Your task to perform on an android device: Search for Italian restaurants on Maps Image 0: 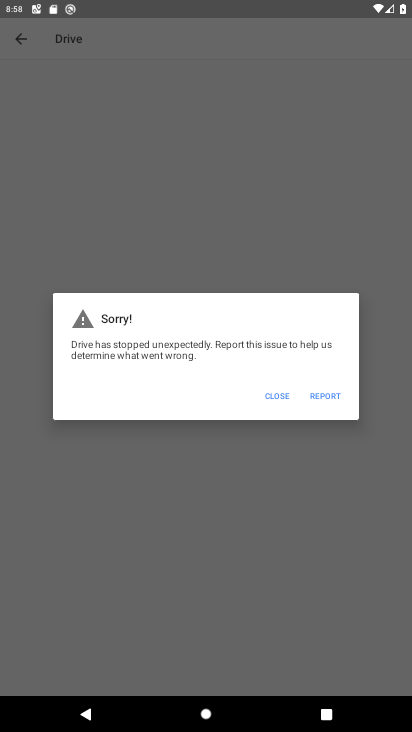
Step 0: press home button
Your task to perform on an android device: Search for Italian restaurants on Maps Image 1: 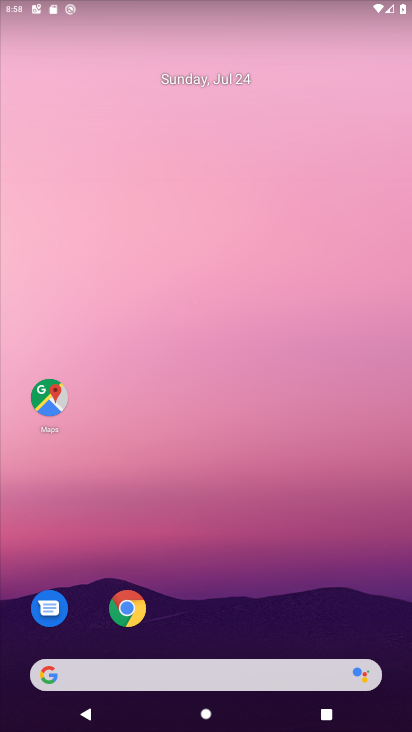
Step 1: click (44, 396)
Your task to perform on an android device: Search for Italian restaurants on Maps Image 2: 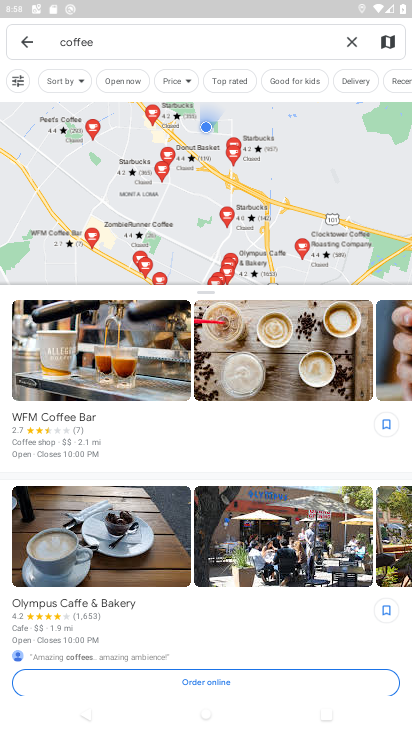
Step 2: click (354, 38)
Your task to perform on an android device: Search for Italian restaurants on Maps Image 3: 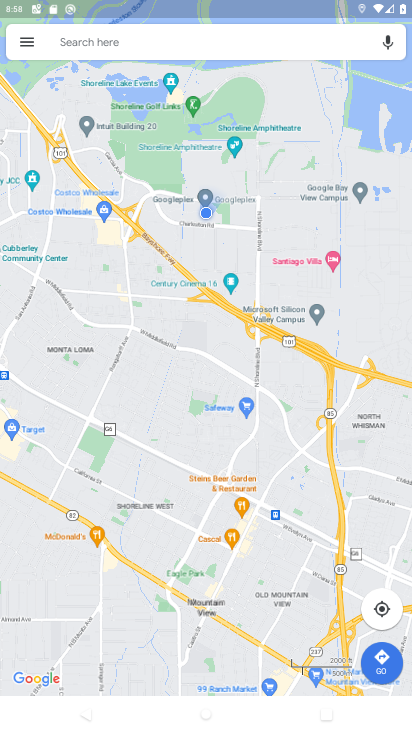
Step 3: click (296, 35)
Your task to perform on an android device: Search for Italian restaurants on Maps Image 4: 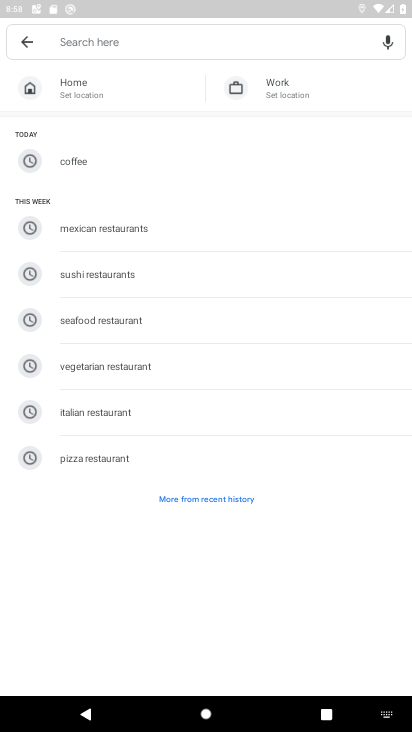
Step 4: type "italian restaurants"
Your task to perform on an android device: Search for Italian restaurants on Maps Image 5: 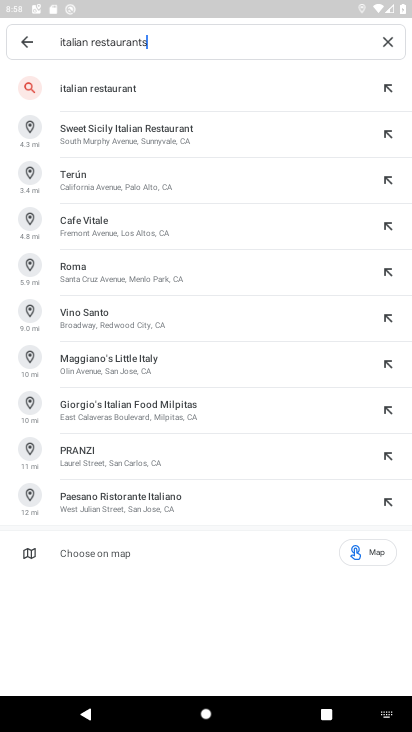
Step 5: click (189, 94)
Your task to perform on an android device: Search for Italian restaurants on Maps Image 6: 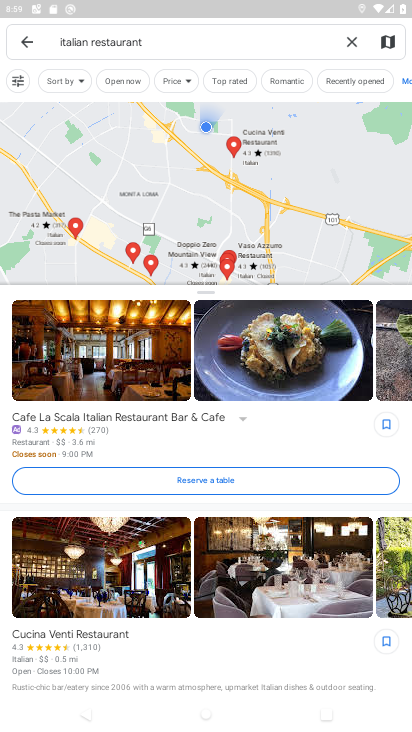
Step 6: task complete